Your task to perform on an android device: Open my contact list Image 0: 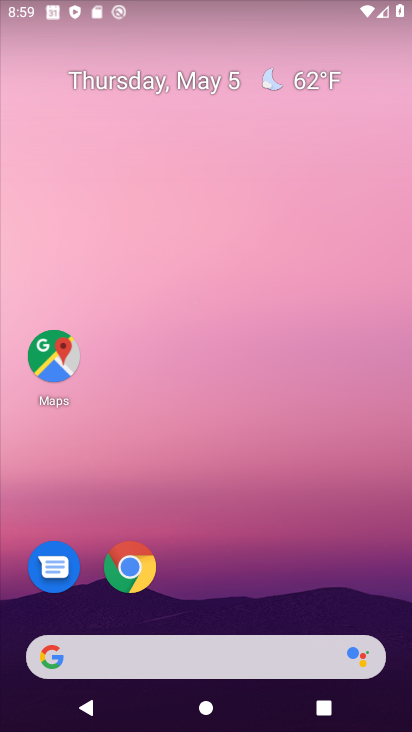
Step 0: drag from (235, 724) to (201, 240)
Your task to perform on an android device: Open my contact list Image 1: 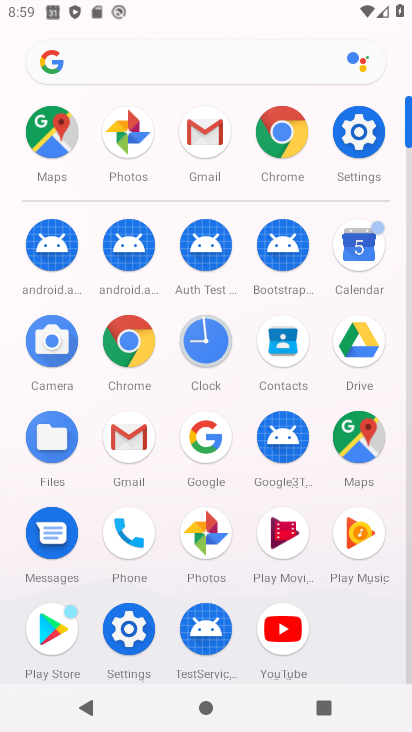
Step 1: click (285, 343)
Your task to perform on an android device: Open my contact list Image 2: 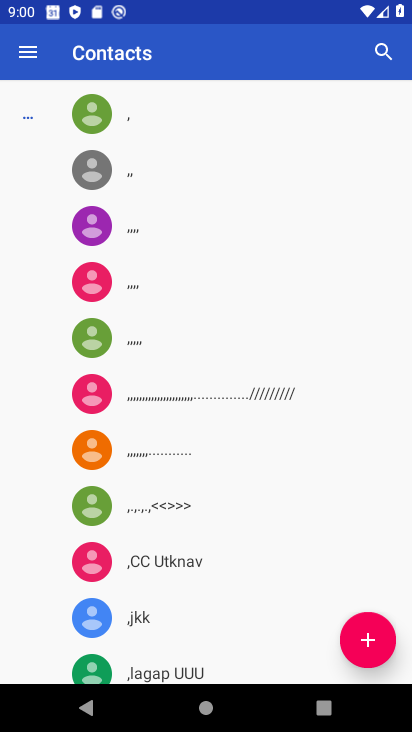
Step 2: task complete